Your task to perform on an android device: turn on javascript in the chrome app Image 0: 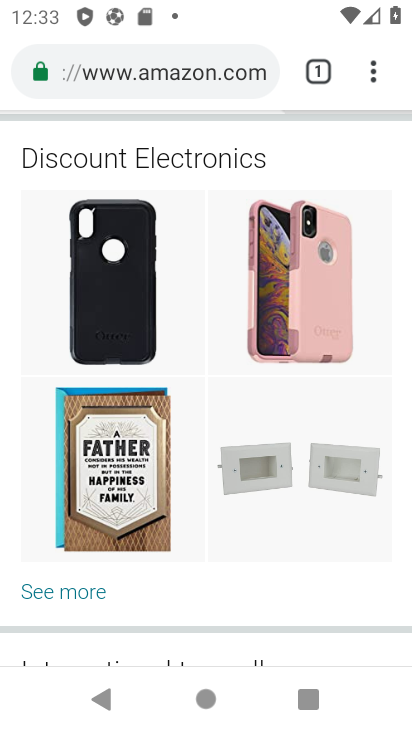
Step 0: press home button
Your task to perform on an android device: turn on javascript in the chrome app Image 1: 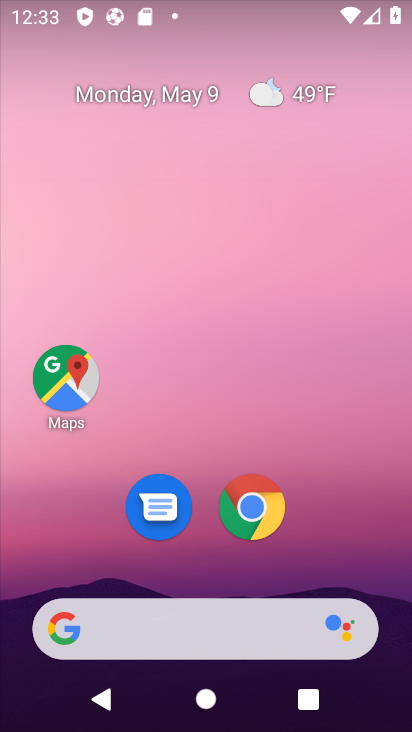
Step 1: click (243, 518)
Your task to perform on an android device: turn on javascript in the chrome app Image 2: 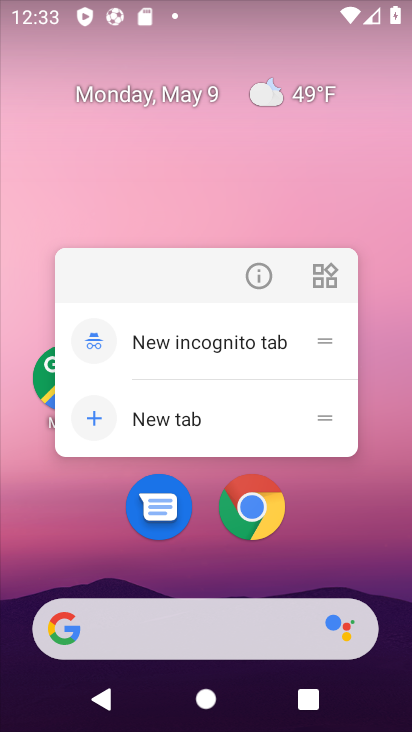
Step 2: click (243, 518)
Your task to perform on an android device: turn on javascript in the chrome app Image 3: 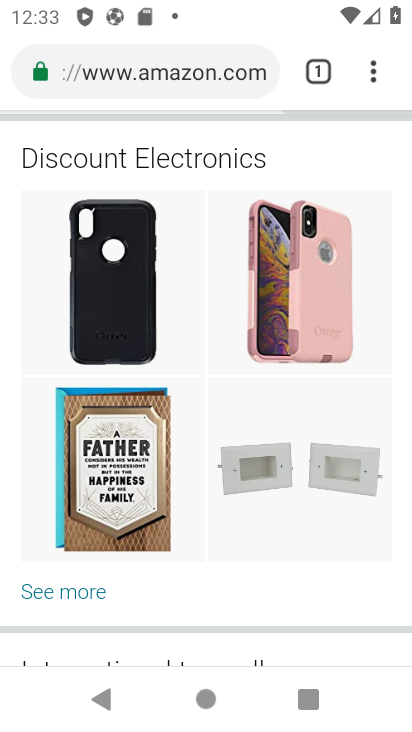
Step 3: click (358, 72)
Your task to perform on an android device: turn on javascript in the chrome app Image 4: 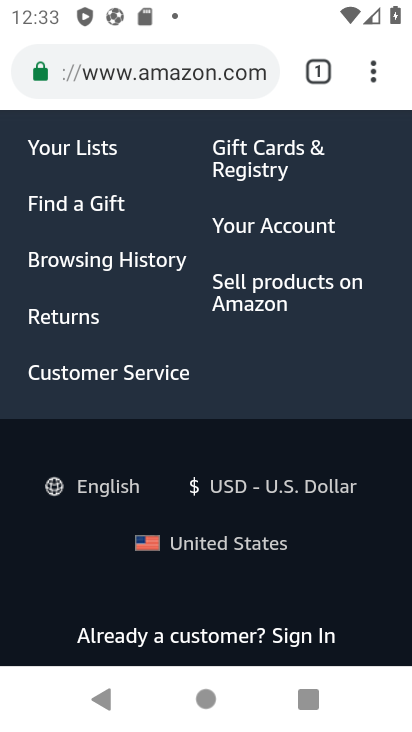
Step 4: click (373, 70)
Your task to perform on an android device: turn on javascript in the chrome app Image 5: 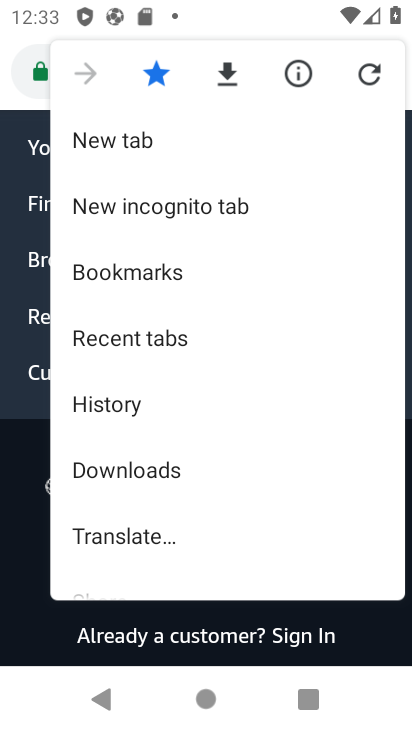
Step 5: drag from (174, 473) to (174, 181)
Your task to perform on an android device: turn on javascript in the chrome app Image 6: 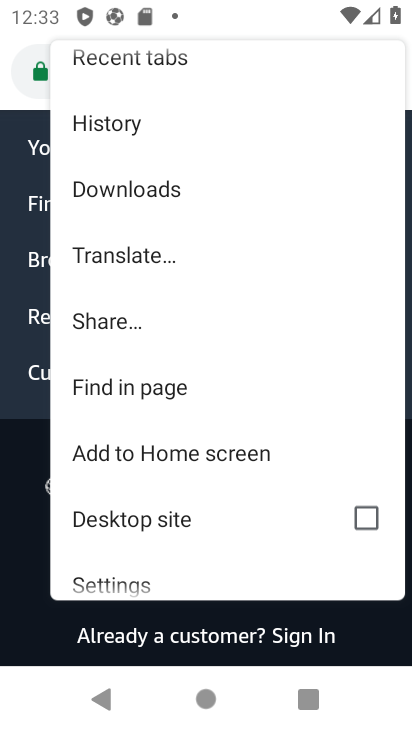
Step 6: drag from (136, 575) to (134, 277)
Your task to perform on an android device: turn on javascript in the chrome app Image 7: 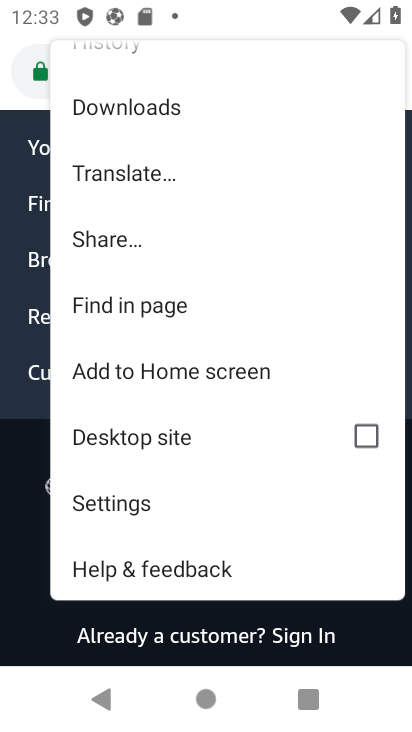
Step 7: click (103, 509)
Your task to perform on an android device: turn on javascript in the chrome app Image 8: 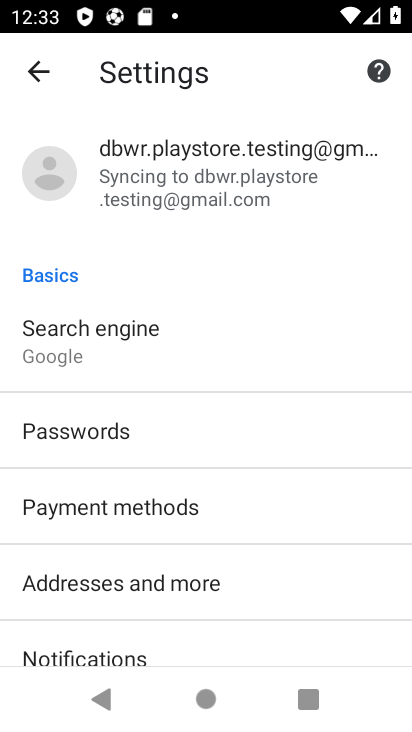
Step 8: drag from (87, 656) to (87, 274)
Your task to perform on an android device: turn on javascript in the chrome app Image 9: 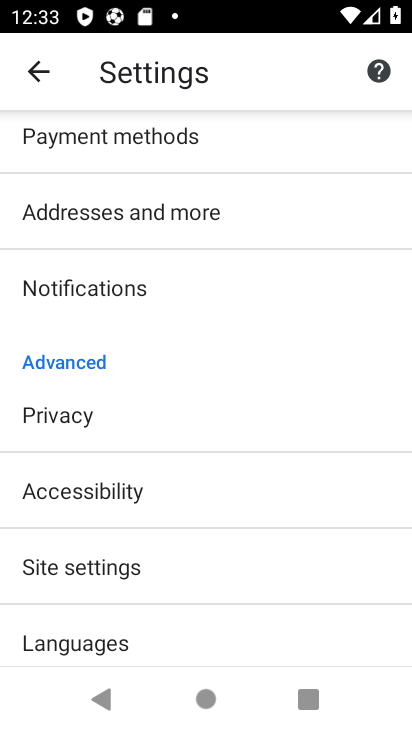
Step 9: click (52, 570)
Your task to perform on an android device: turn on javascript in the chrome app Image 10: 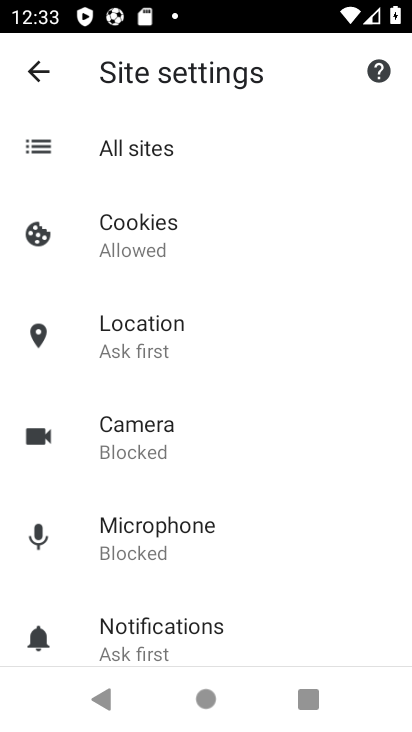
Step 10: drag from (81, 564) to (119, 211)
Your task to perform on an android device: turn on javascript in the chrome app Image 11: 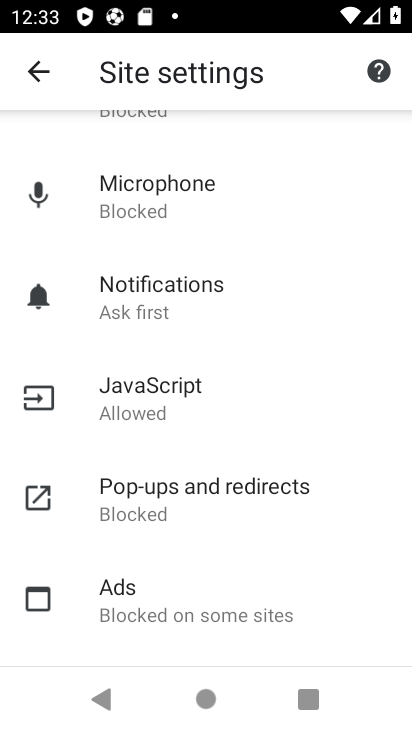
Step 11: click (149, 389)
Your task to perform on an android device: turn on javascript in the chrome app Image 12: 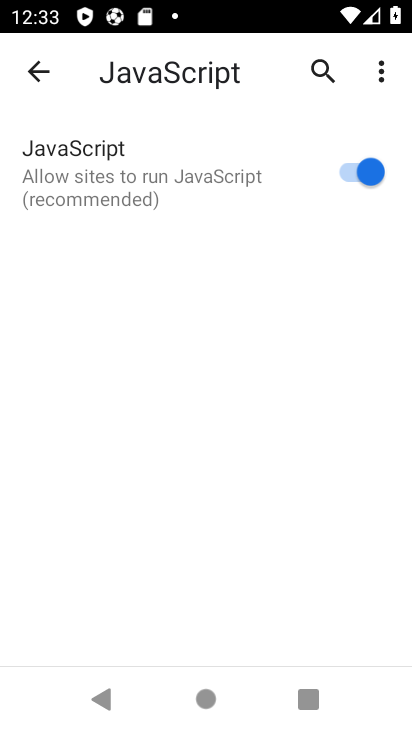
Step 12: task complete